Your task to perform on an android device: Search for custom wallets on Etsy. Image 0: 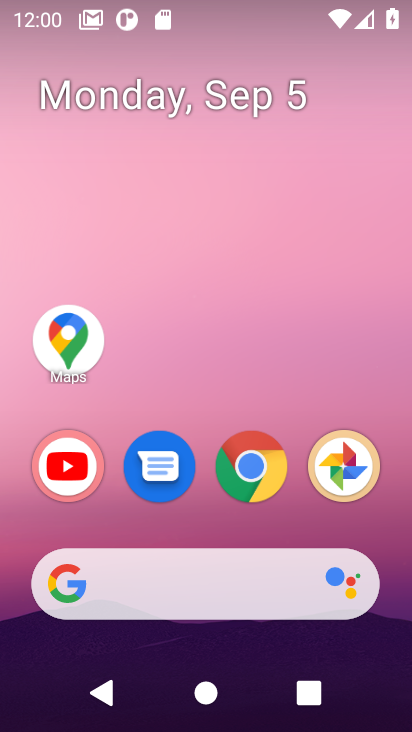
Step 0: drag from (235, 401) to (291, 22)
Your task to perform on an android device: Search for custom wallets on Etsy. Image 1: 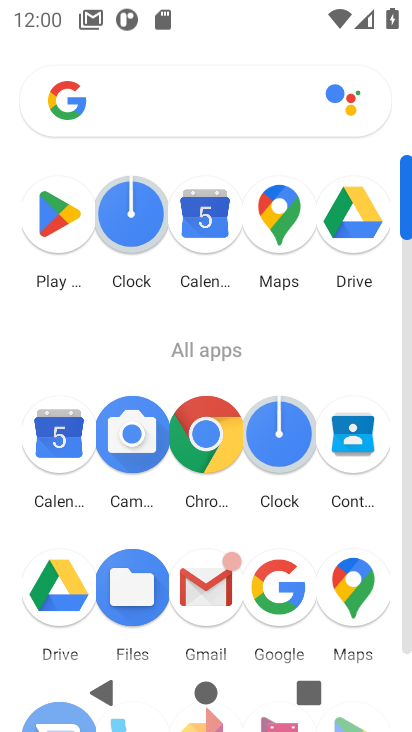
Step 1: click (206, 444)
Your task to perform on an android device: Search for custom wallets on Etsy. Image 2: 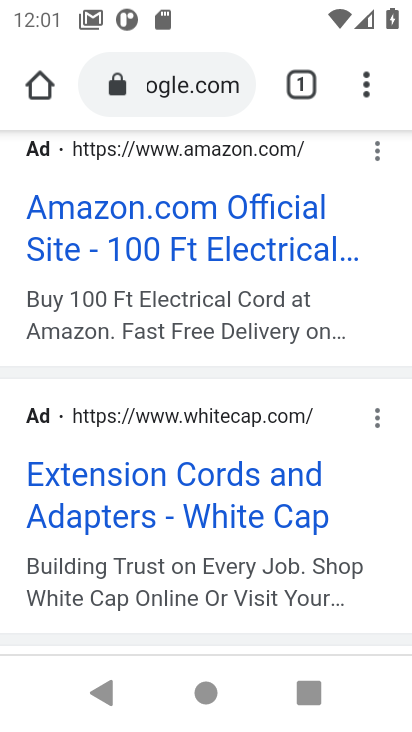
Step 2: click (151, 73)
Your task to perform on an android device: Search for custom wallets on Etsy. Image 3: 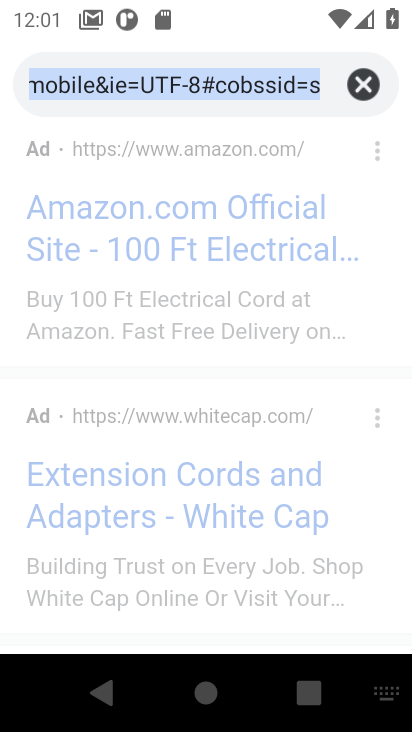
Step 3: type "Etsy"
Your task to perform on an android device: Search for custom wallets on Etsy. Image 4: 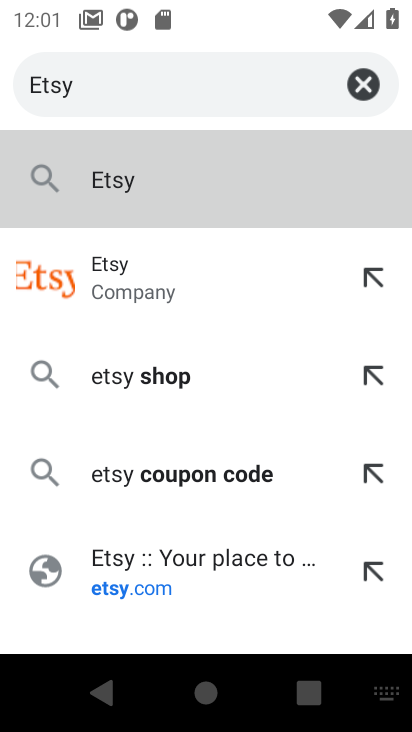
Step 4: click (135, 272)
Your task to perform on an android device: Search for custom wallets on Etsy. Image 5: 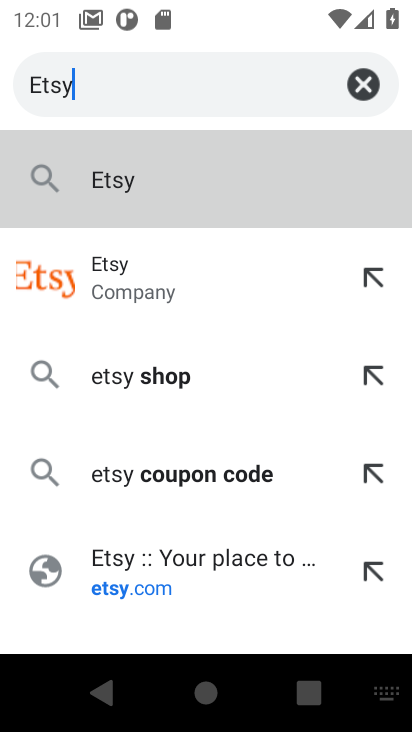
Step 5: click (80, 271)
Your task to perform on an android device: Search for custom wallets on Etsy. Image 6: 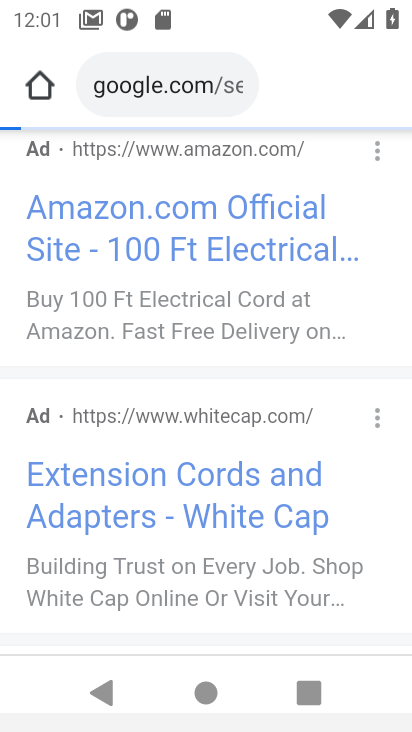
Step 6: click (142, 168)
Your task to perform on an android device: Search for custom wallets on Etsy. Image 7: 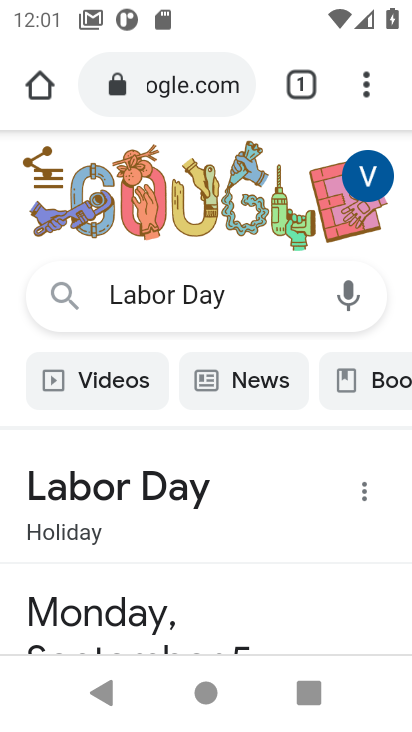
Step 7: click (127, 226)
Your task to perform on an android device: Search for custom wallets on Etsy. Image 8: 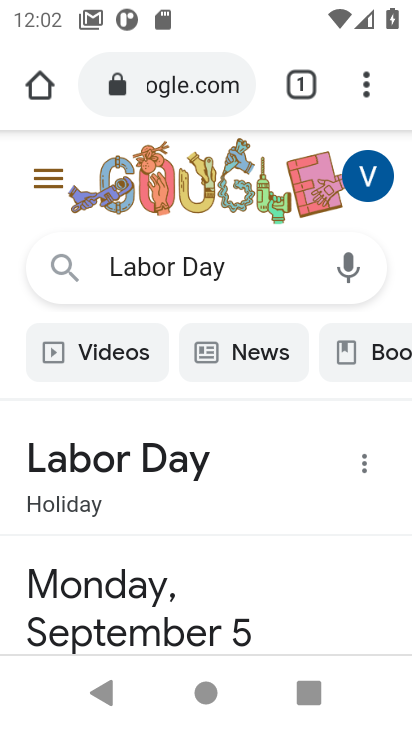
Step 8: drag from (192, 540) to (321, 80)
Your task to perform on an android device: Search for custom wallets on Etsy. Image 9: 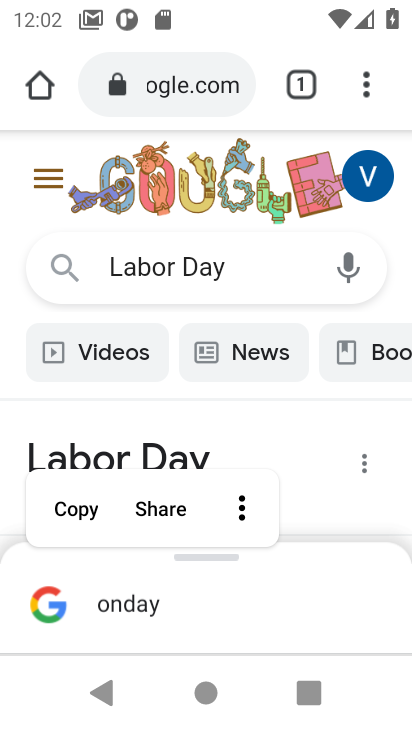
Step 9: drag from (140, 539) to (174, 478)
Your task to perform on an android device: Search for custom wallets on Etsy. Image 10: 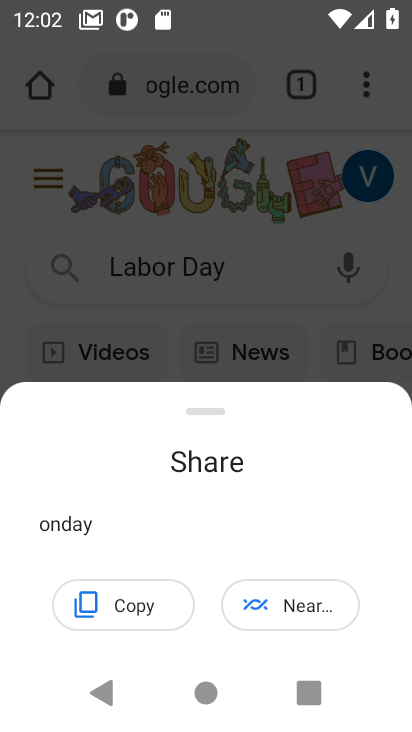
Step 10: click (386, 298)
Your task to perform on an android device: Search for custom wallets on Etsy. Image 11: 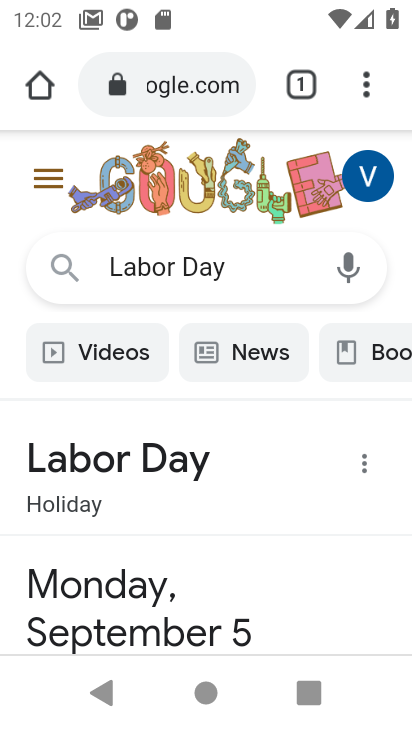
Step 11: task complete